Your task to perform on an android device: turn off javascript in the chrome app Image 0: 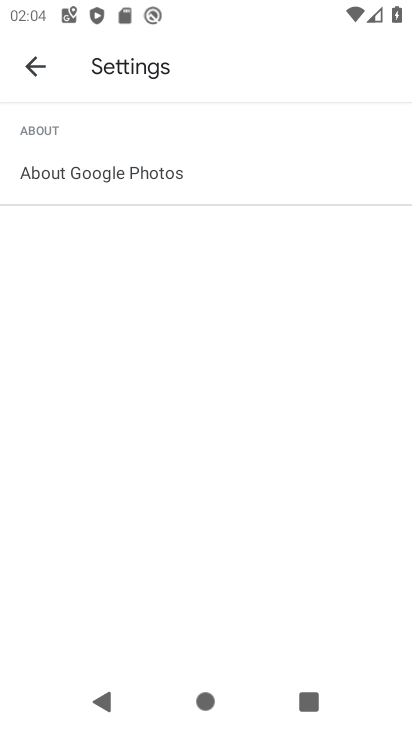
Step 0: press home button
Your task to perform on an android device: turn off javascript in the chrome app Image 1: 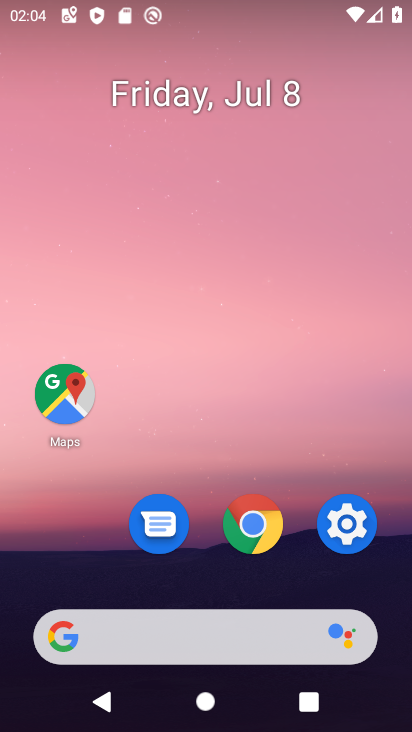
Step 1: click (270, 529)
Your task to perform on an android device: turn off javascript in the chrome app Image 2: 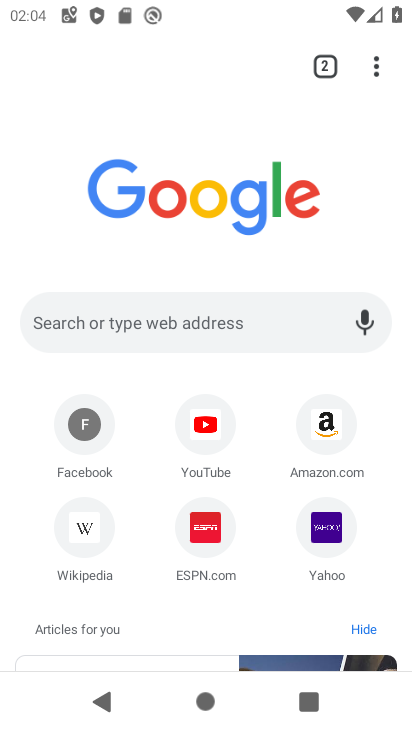
Step 2: click (375, 67)
Your task to perform on an android device: turn off javascript in the chrome app Image 3: 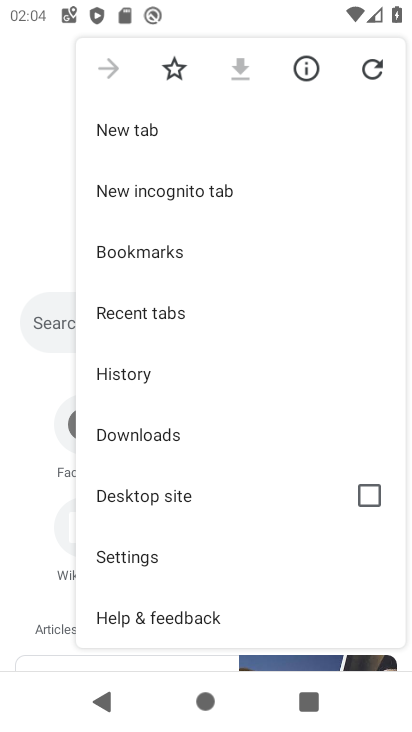
Step 3: click (144, 554)
Your task to perform on an android device: turn off javascript in the chrome app Image 4: 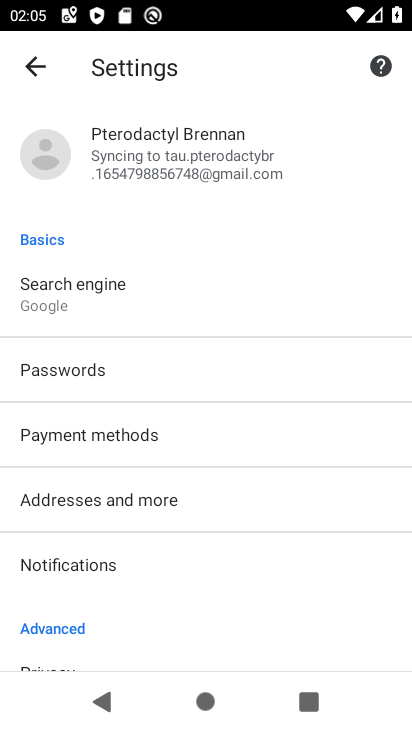
Step 4: click (94, 437)
Your task to perform on an android device: turn off javascript in the chrome app Image 5: 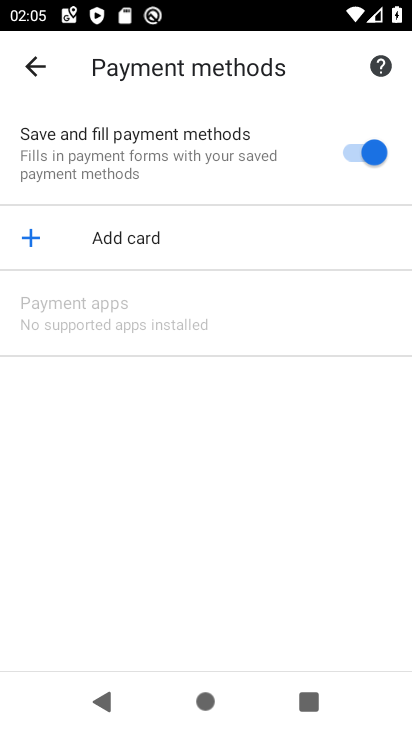
Step 5: drag from (119, 566) to (156, 446)
Your task to perform on an android device: turn off javascript in the chrome app Image 6: 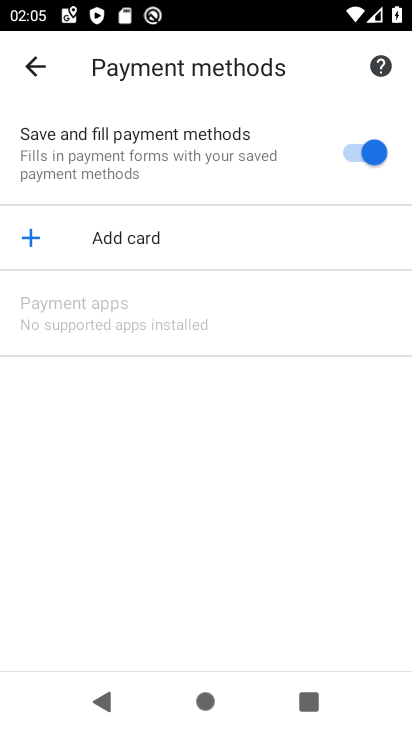
Step 6: click (54, 75)
Your task to perform on an android device: turn off javascript in the chrome app Image 7: 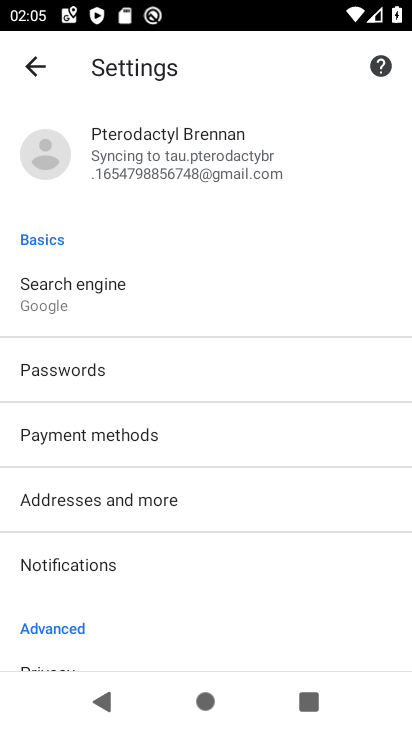
Step 7: drag from (132, 534) to (183, 377)
Your task to perform on an android device: turn off javascript in the chrome app Image 8: 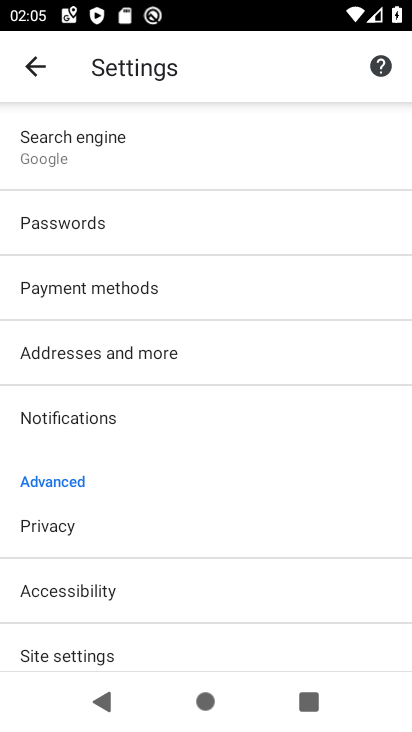
Step 8: click (111, 645)
Your task to perform on an android device: turn off javascript in the chrome app Image 9: 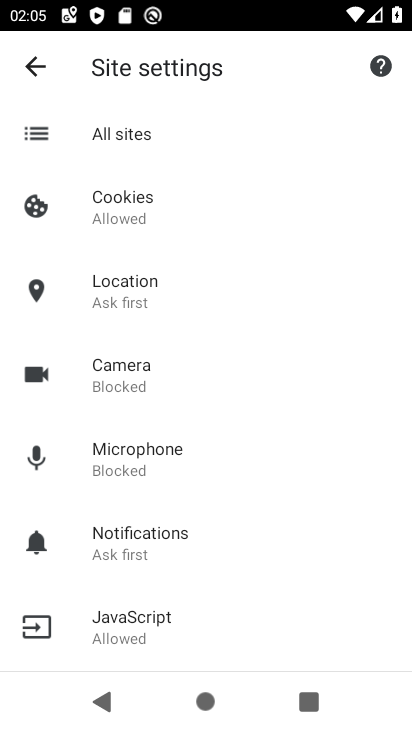
Step 9: click (123, 607)
Your task to perform on an android device: turn off javascript in the chrome app Image 10: 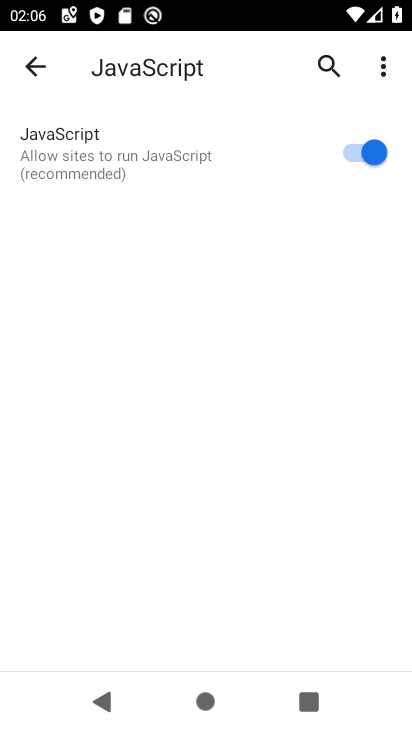
Step 10: click (365, 154)
Your task to perform on an android device: turn off javascript in the chrome app Image 11: 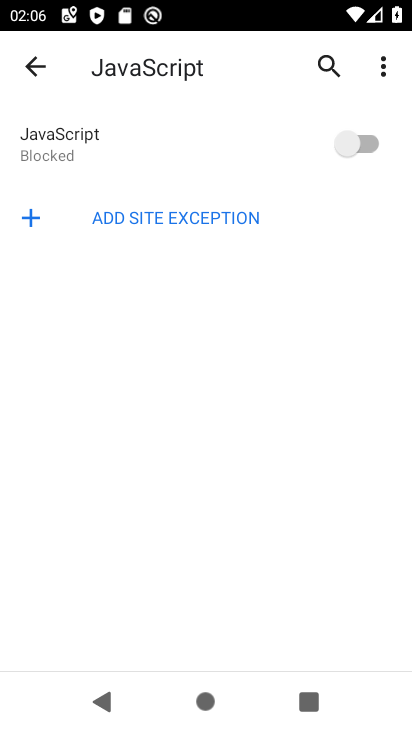
Step 11: task complete